Your task to perform on an android device: change alarm snooze length Image 0: 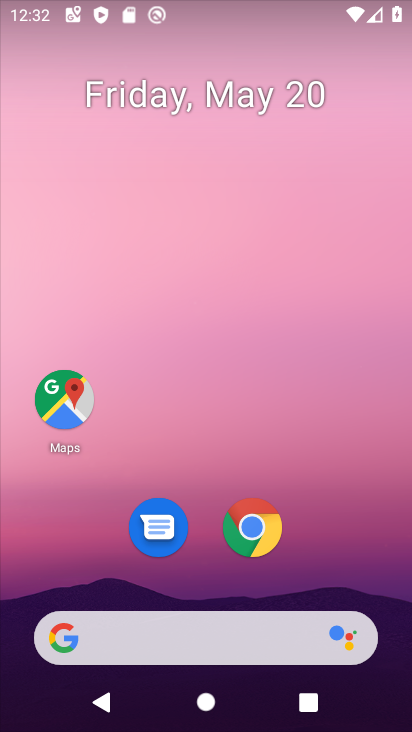
Step 0: drag from (257, 665) to (187, 126)
Your task to perform on an android device: change alarm snooze length Image 1: 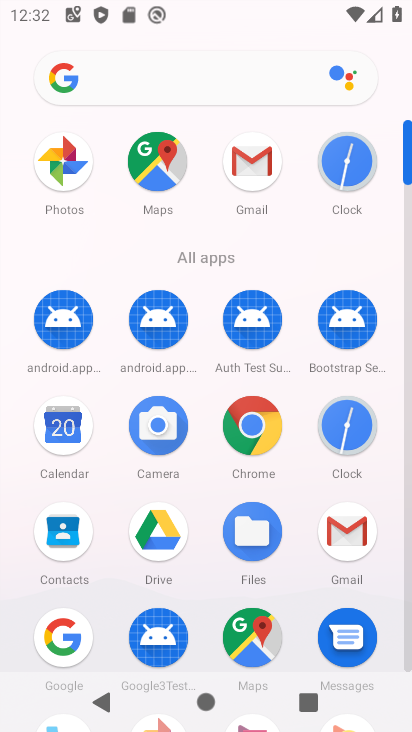
Step 1: click (339, 444)
Your task to perform on an android device: change alarm snooze length Image 2: 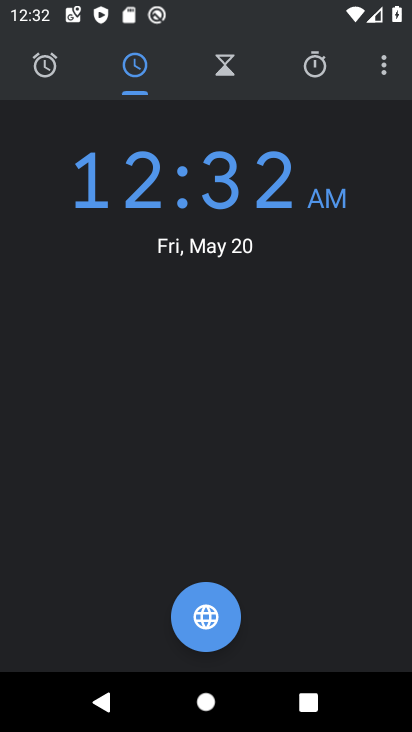
Step 2: click (383, 64)
Your task to perform on an android device: change alarm snooze length Image 3: 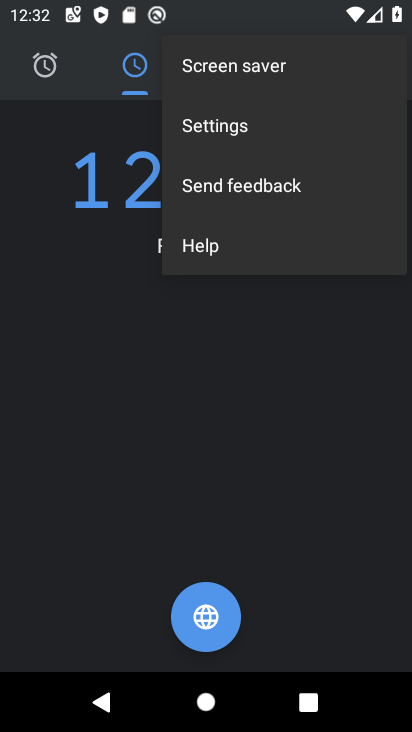
Step 3: click (236, 123)
Your task to perform on an android device: change alarm snooze length Image 4: 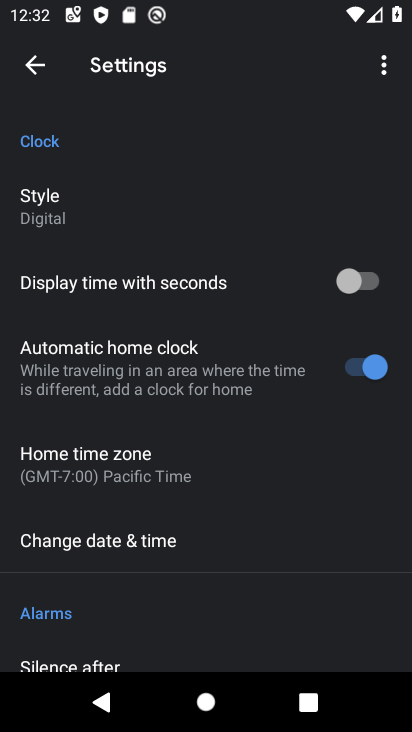
Step 4: drag from (185, 549) to (144, 316)
Your task to perform on an android device: change alarm snooze length Image 5: 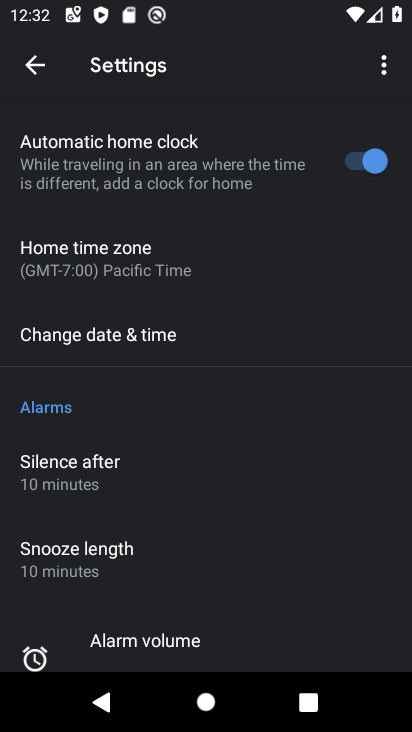
Step 5: click (132, 554)
Your task to perform on an android device: change alarm snooze length Image 6: 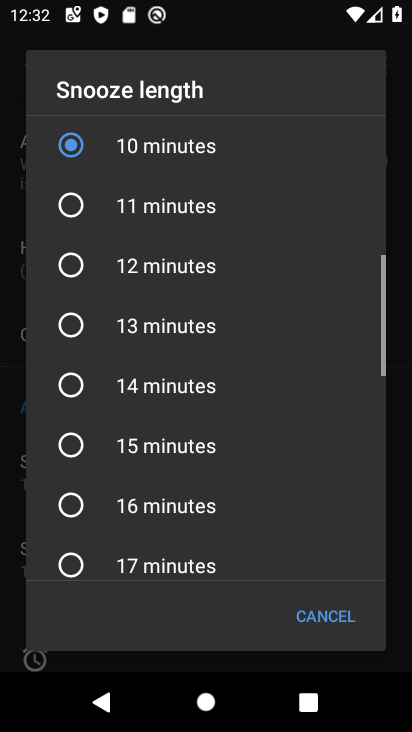
Step 6: click (123, 392)
Your task to perform on an android device: change alarm snooze length Image 7: 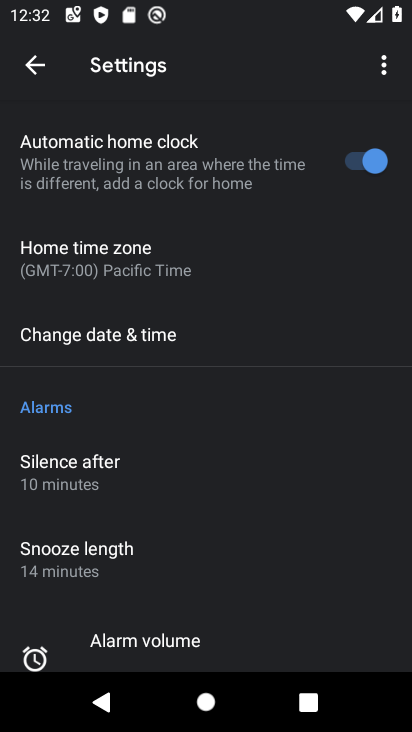
Step 7: task complete